Your task to perform on an android device: turn pop-ups off in chrome Image 0: 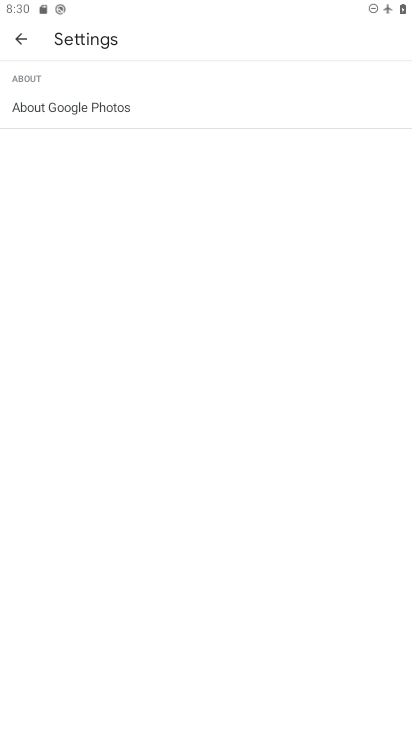
Step 0: press home button
Your task to perform on an android device: turn pop-ups off in chrome Image 1: 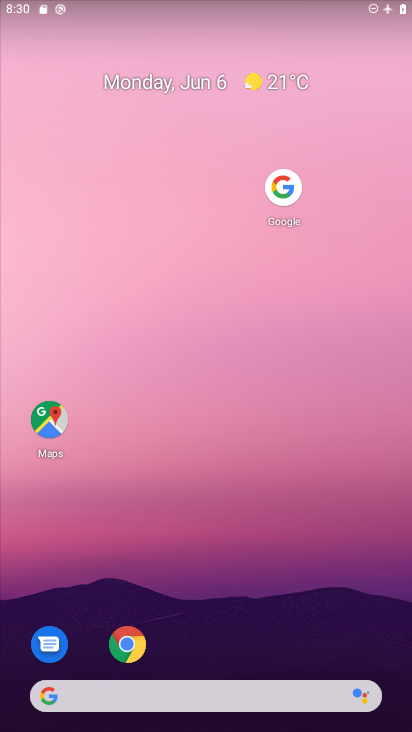
Step 1: click (129, 632)
Your task to perform on an android device: turn pop-ups off in chrome Image 2: 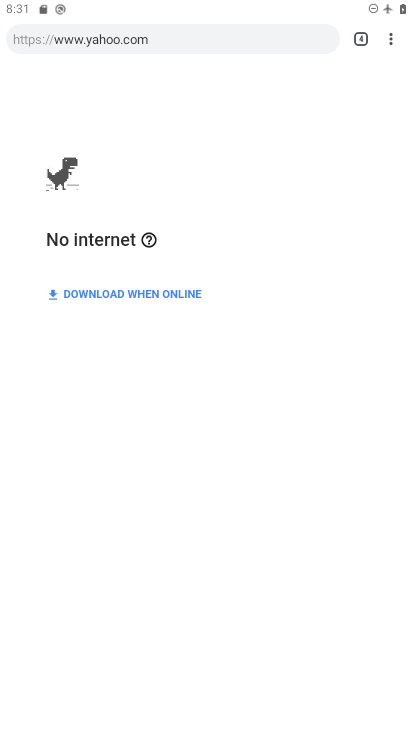
Step 2: click (391, 38)
Your task to perform on an android device: turn pop-ups off in chrome Image 3: 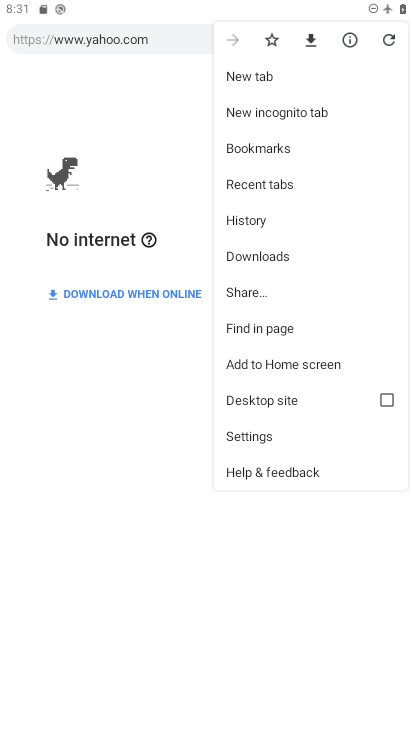
Step 3: click (264, 432)
Your task to perform on an android device: turn pop-ups off in chrome Image 4: 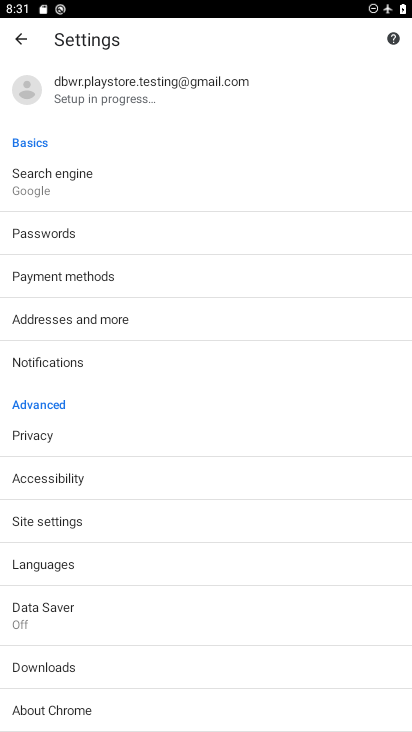
Step 4: click (48, 512)
Your task to perform on an android device: turn pop-ups off in chrome Image 5: 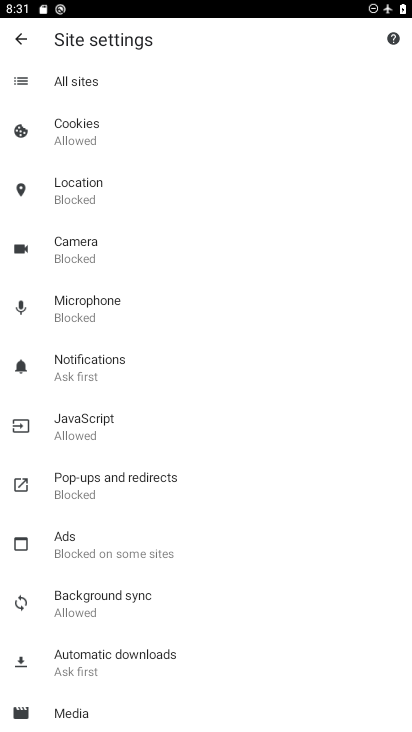
Step 5: click (137, 485)
Your task to perform on an android device: turn pop-ups off in chrome Image 6: 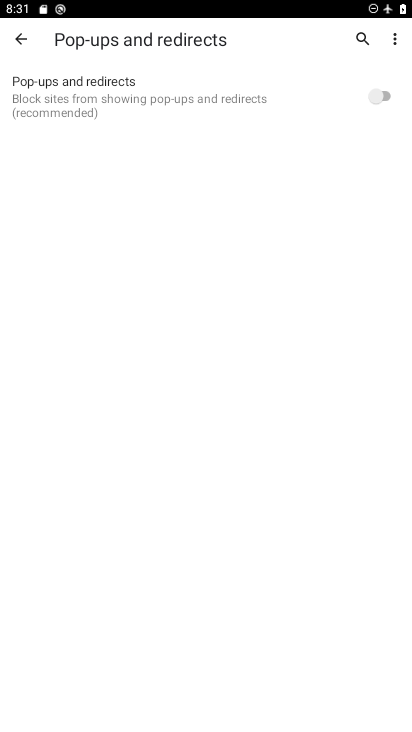
Step 6: task complete